Your task to perform on an android device: toggle airplane mode Image 0: 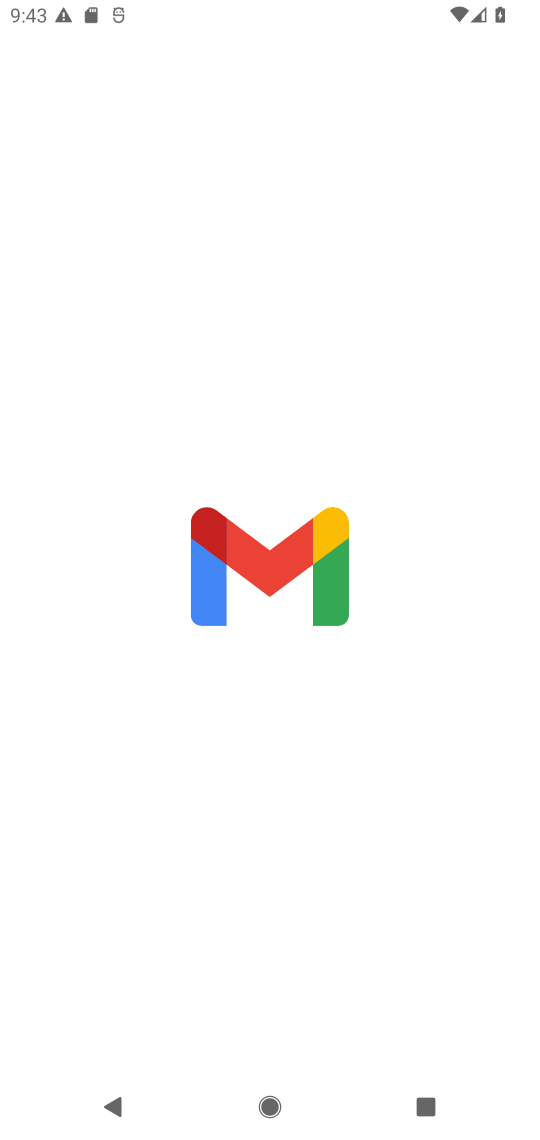
Step 0: drag from (254, 13) to (211, 687)
Your task to perform on an android device: toggle airplane mode Image 1: 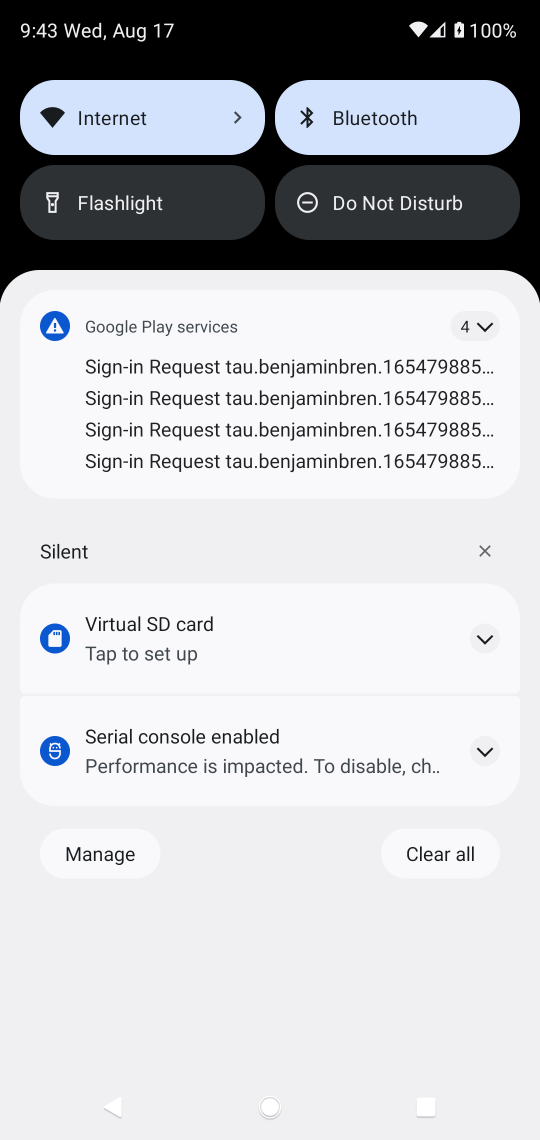
Step 1: drag from (275, 75) to (304, 497)
Your task to perform on an android device: toggle airplane mode Image 2: 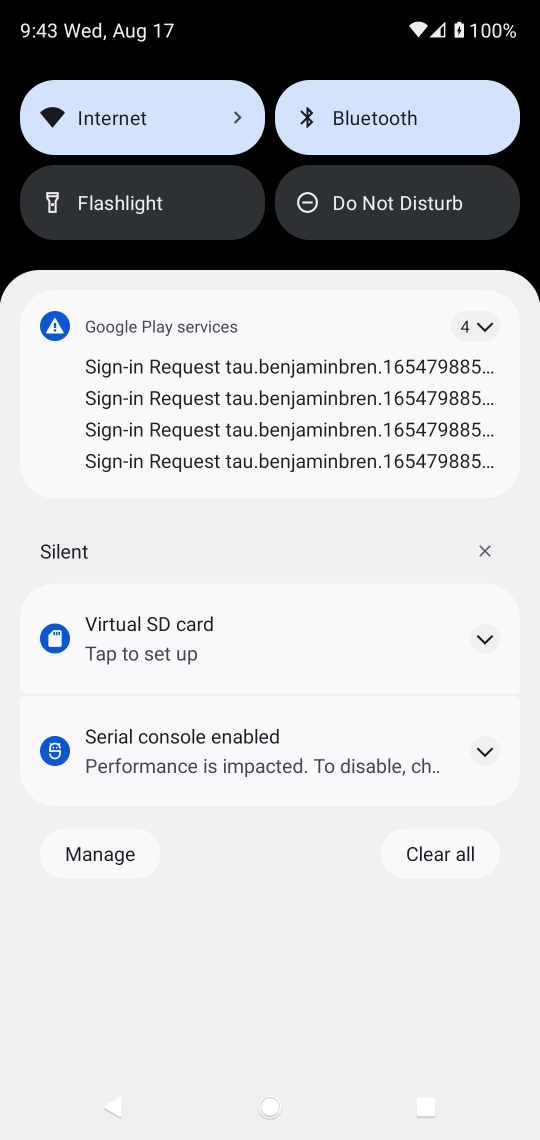
Step 2: drag from (262, 60) to (500, 1066)
Your task to perform on an android device: toggle airplane mode Image 3: 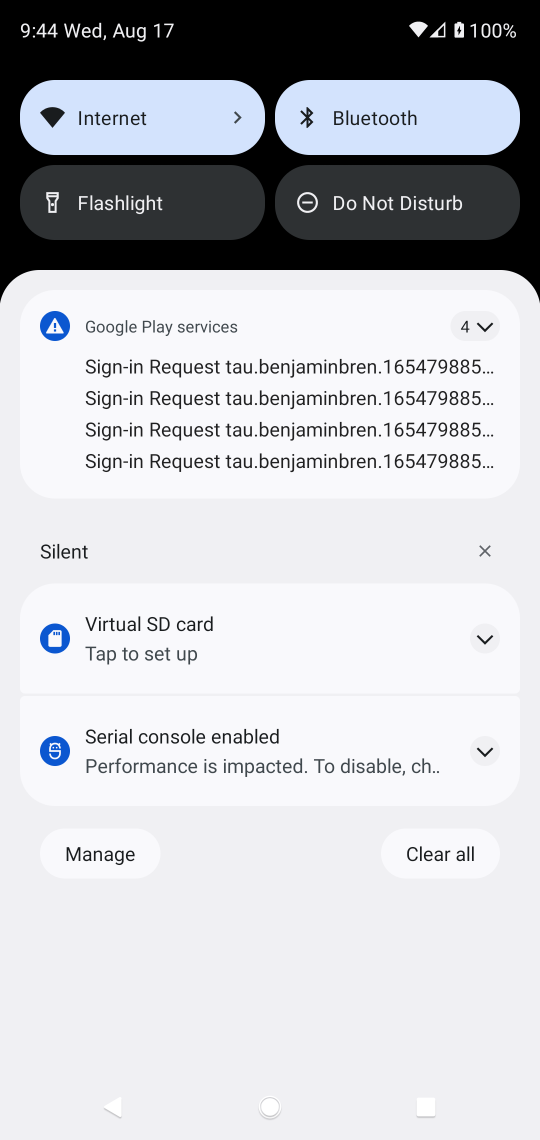
Step 3: drag from (266, 29) to (475, 1094)
Your task to perform on an android device: toggle airplane mode Image 4: 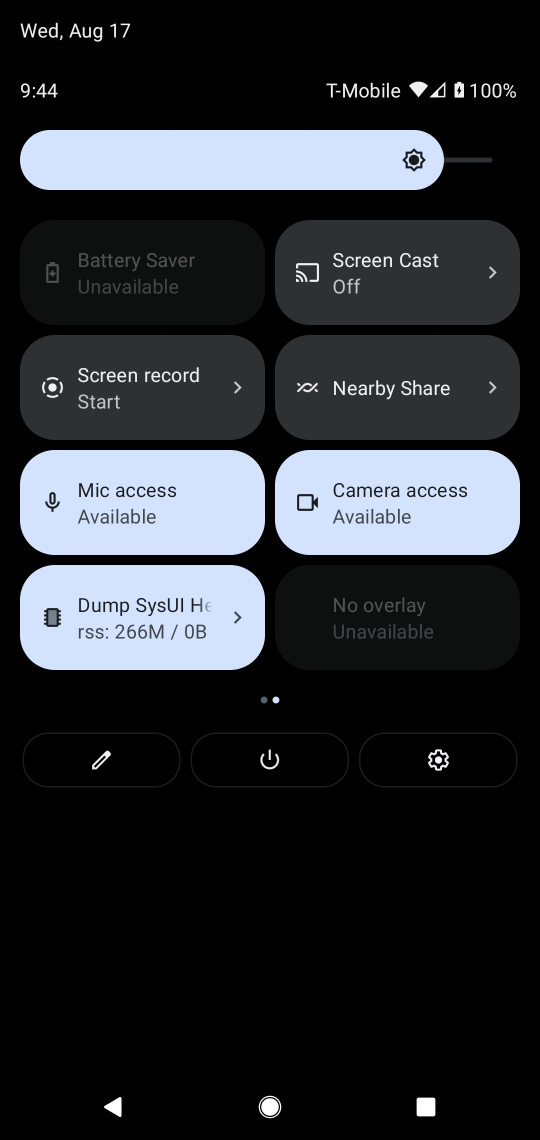
Step 4: click (449, 773)
Your task to perform on an android device: toggle airplane mode Image 5: 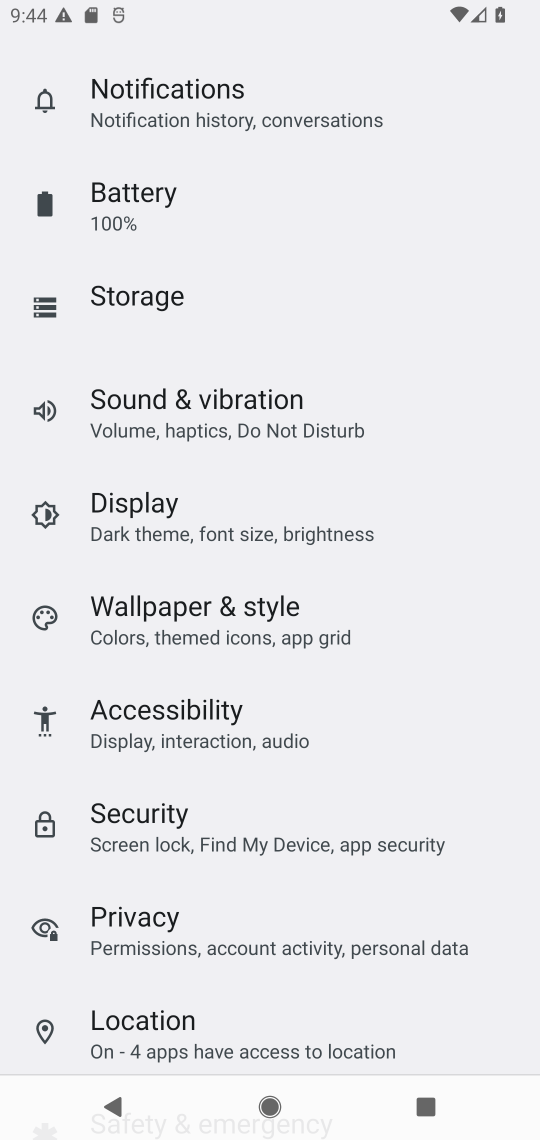
Step 5: drag from (253, 152) to (349, 1006)
Your task to perform on an android device: toggle airplane mode Image 6: 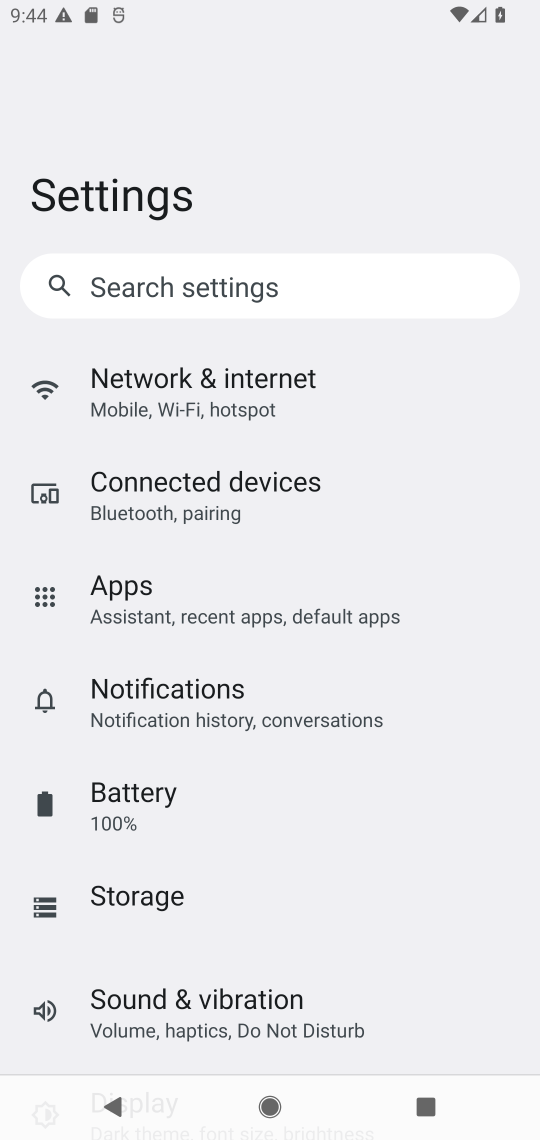
Step 6: click (228, 372)
Your task to perform on an android device: toggle airplane mode Image 7: 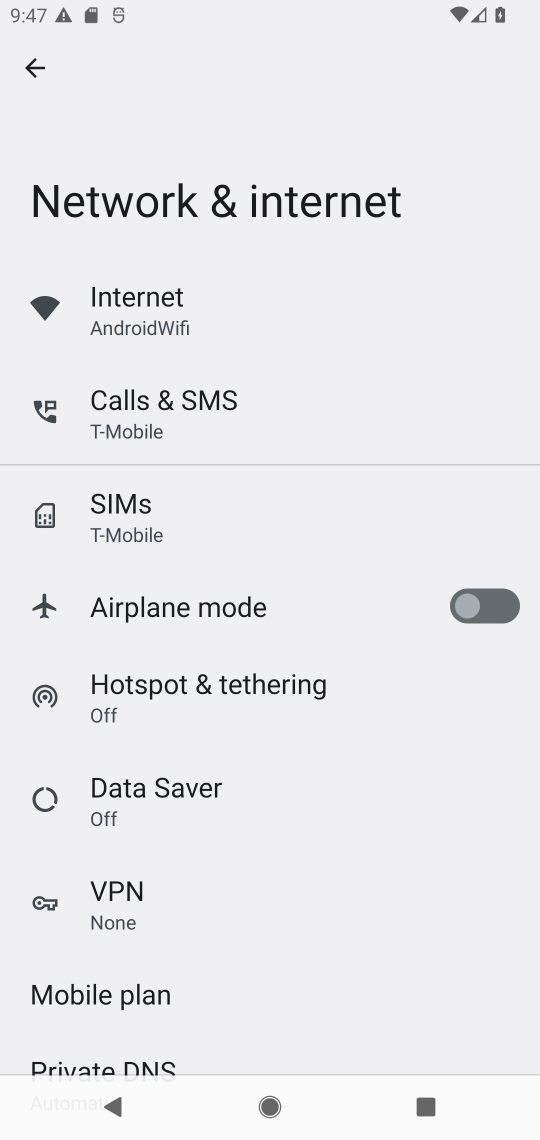
Step 7: click (472, 604)
Your task to perform on an android device: toggle airplane mode Image 8: 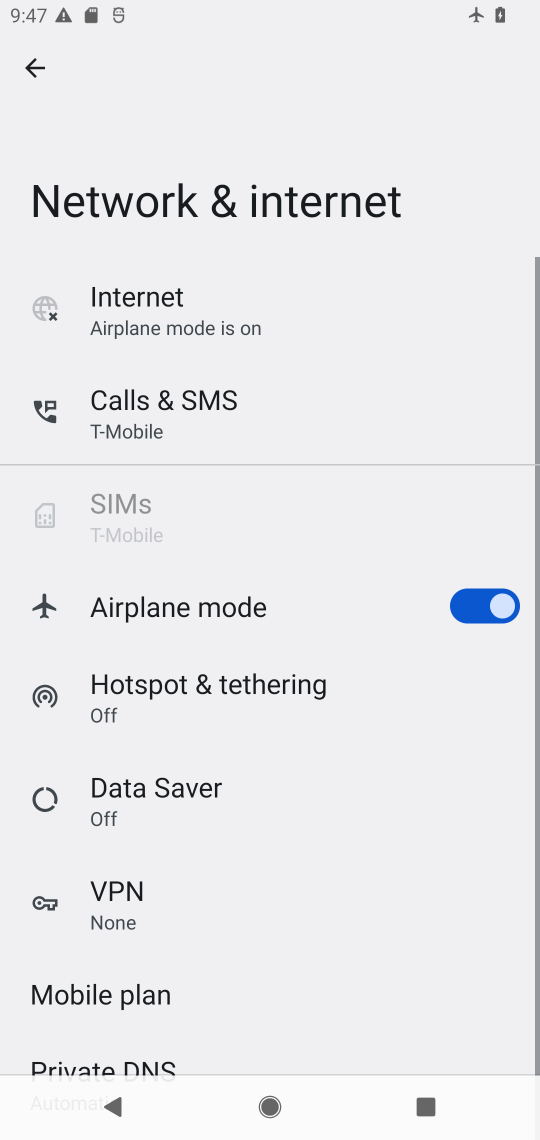
Step 8: click (472, 604)
Your task to perform on an android device: toggle airplane mode Image 9: 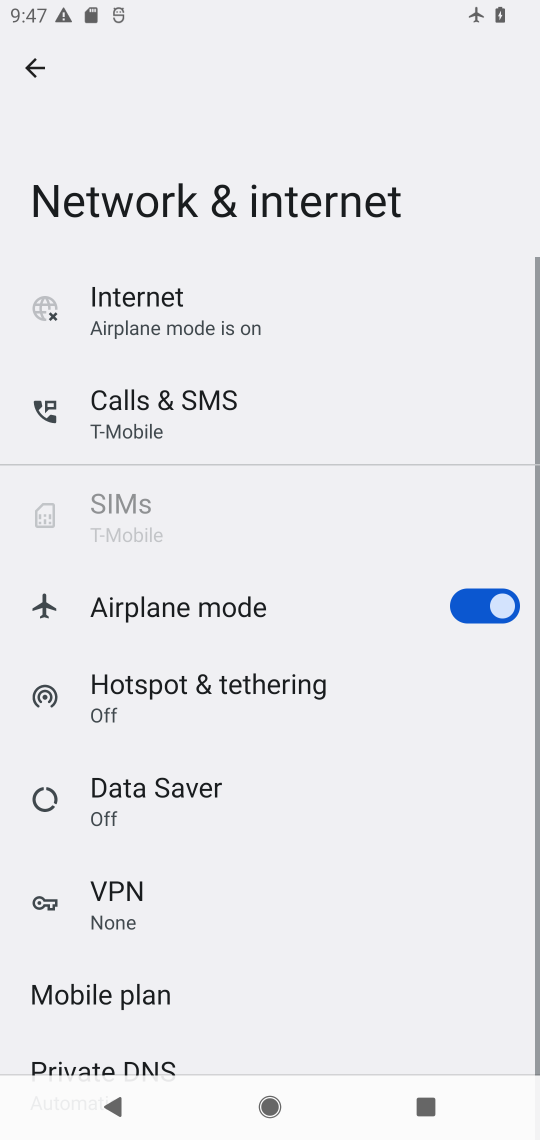
Step 9: click (472, 604)
Your task to perform on an android device: toggle airplane mode Image 10: 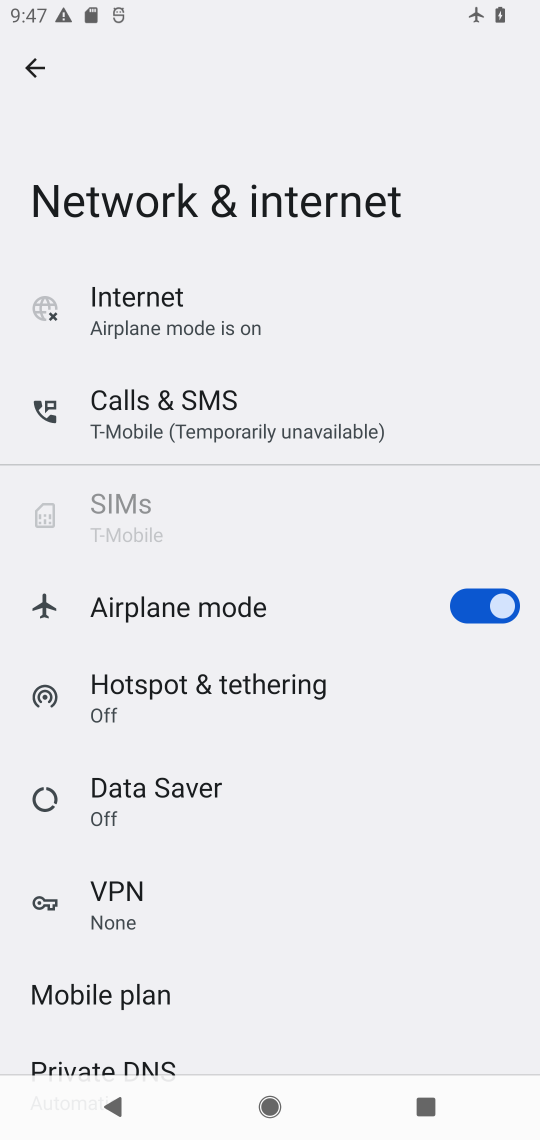
Step 10: click (462, 609)
Your task to perform on an android device: toggle airplane mode Image 11: 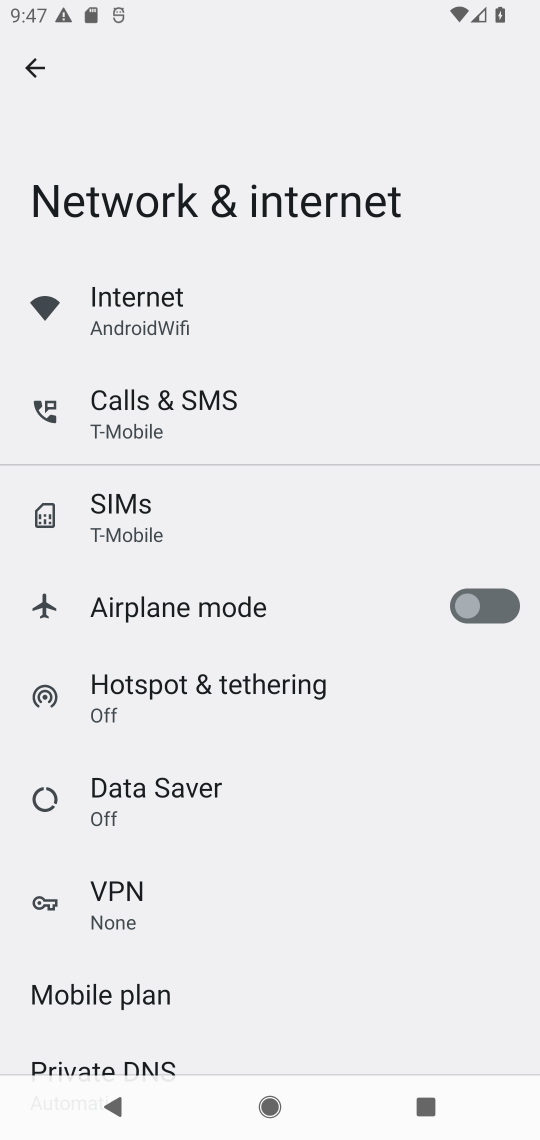
Step 11: task complete